Your task to perform on an android device: turn off notifications in google photos Image 0: 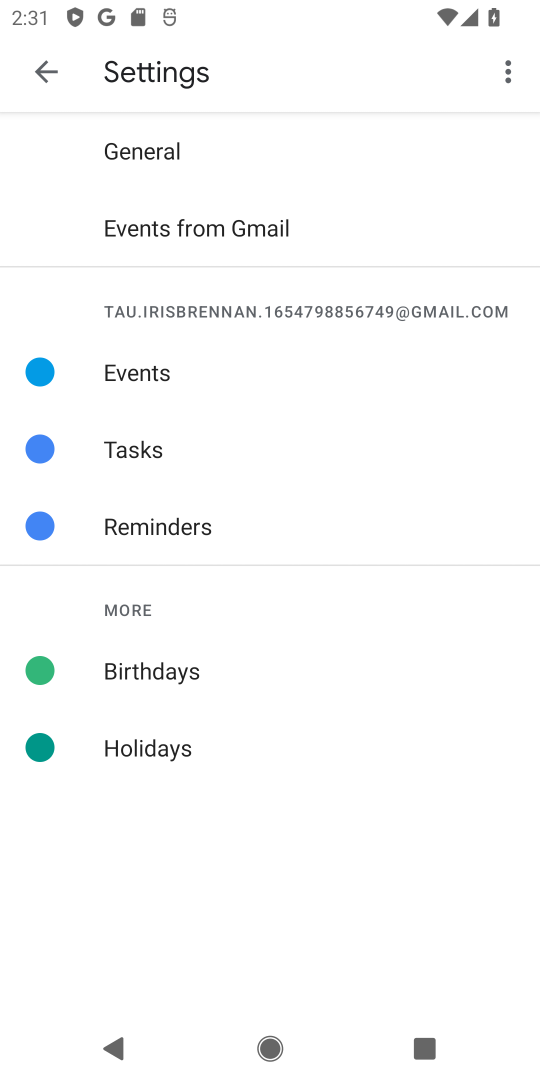
Step 0: press home button
Your task to perform on an android device: turn off notifications in google photos Image 1: 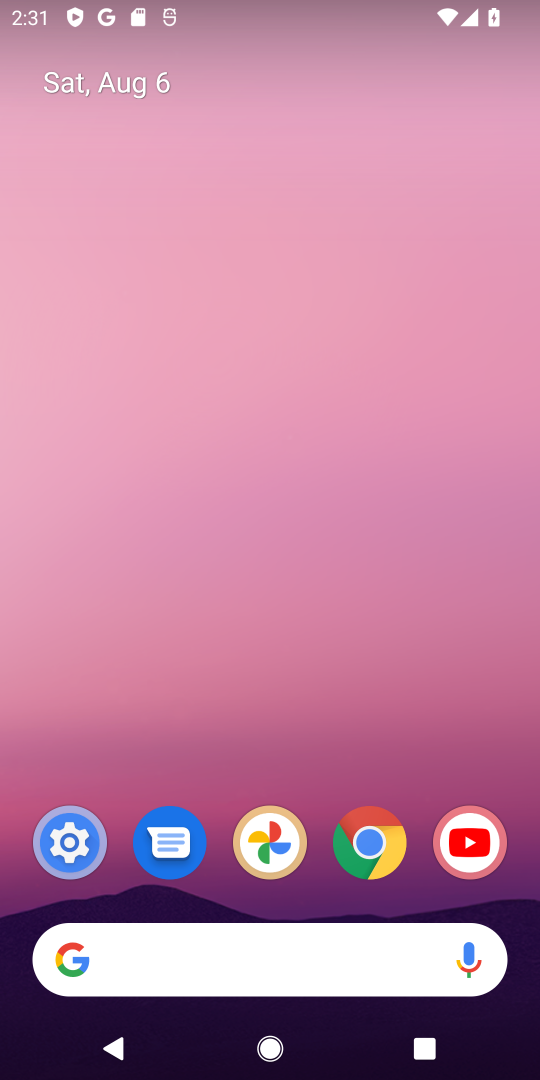
Step 1: click (256, 822)
Your task to perform on an android device: turn off notifications in google photos Image 2: 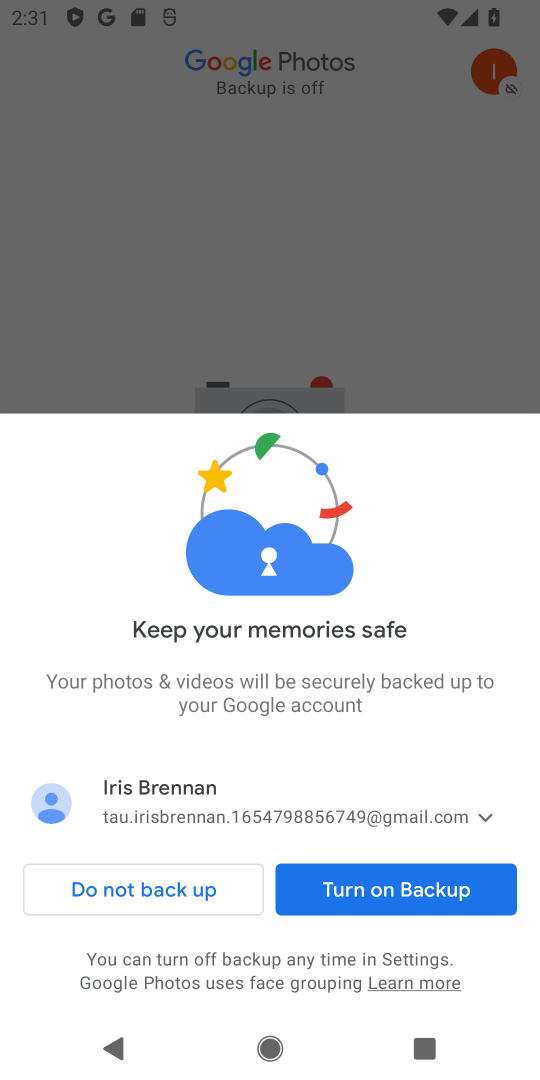
Step 2: click (218, 896)
Your task to perform on an android device: turn off notifications in google photos Image 3: 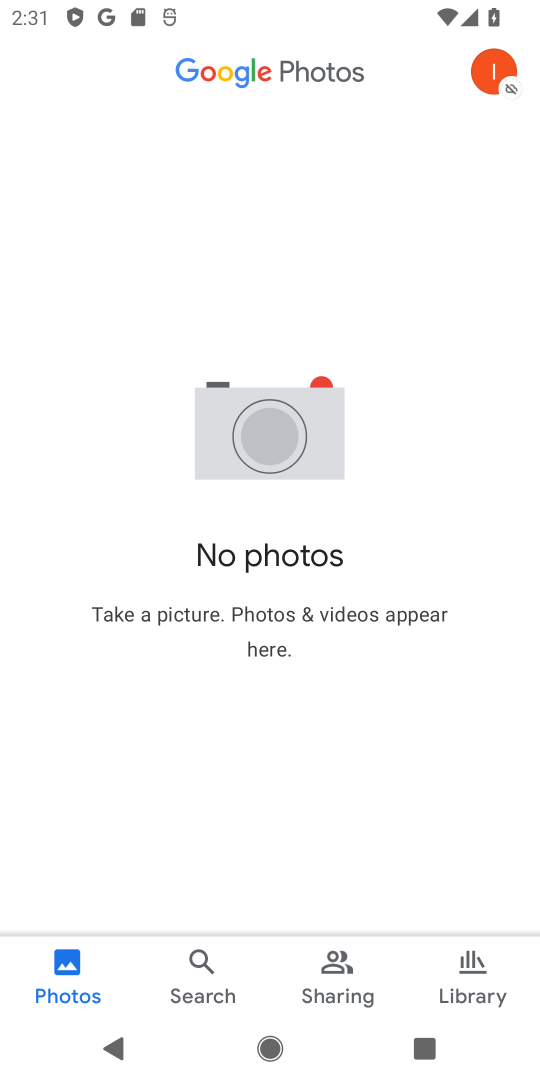
Step 3: click (489, 57)
Your task to perform on an android device: turn off notifications in google photos Image 4: 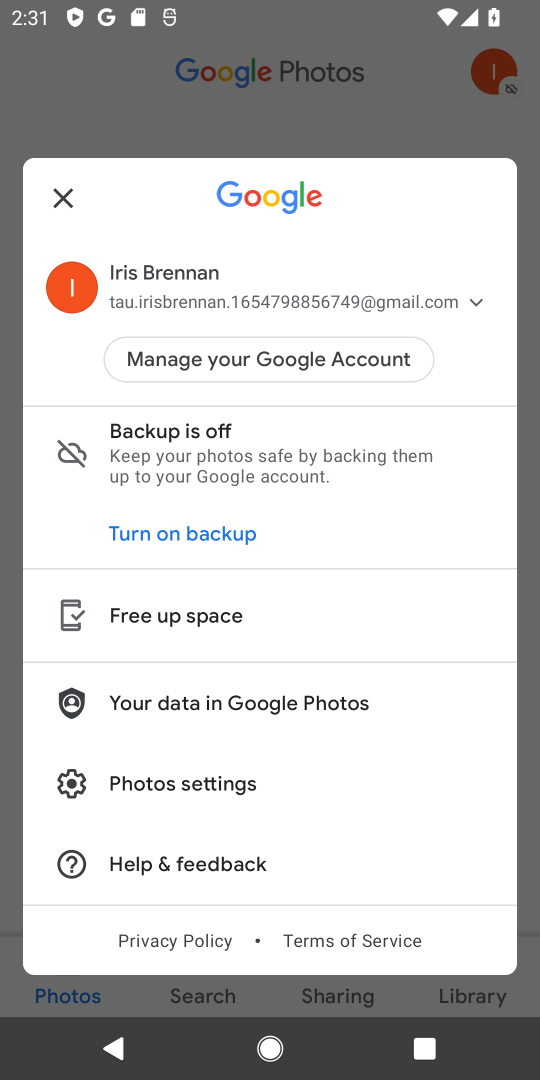
Step 4: drag from (299, 858) to (332, 447)
Your task to perform on an android device: turn off notifications in google photos Image 5: 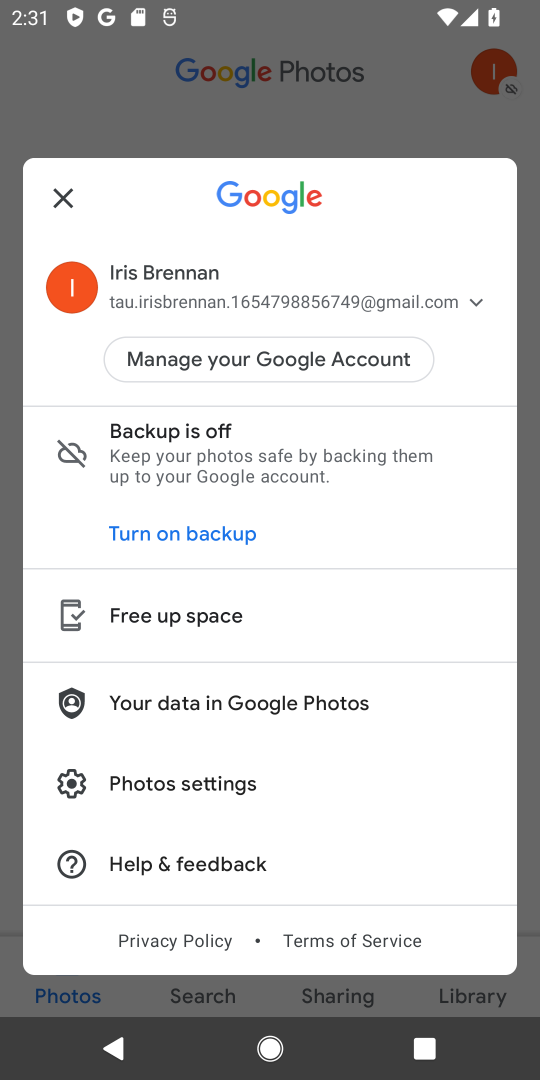
Step 5: click (213, 785)
Your task to perform on an android device: turn off notifications in google photos Image 6: 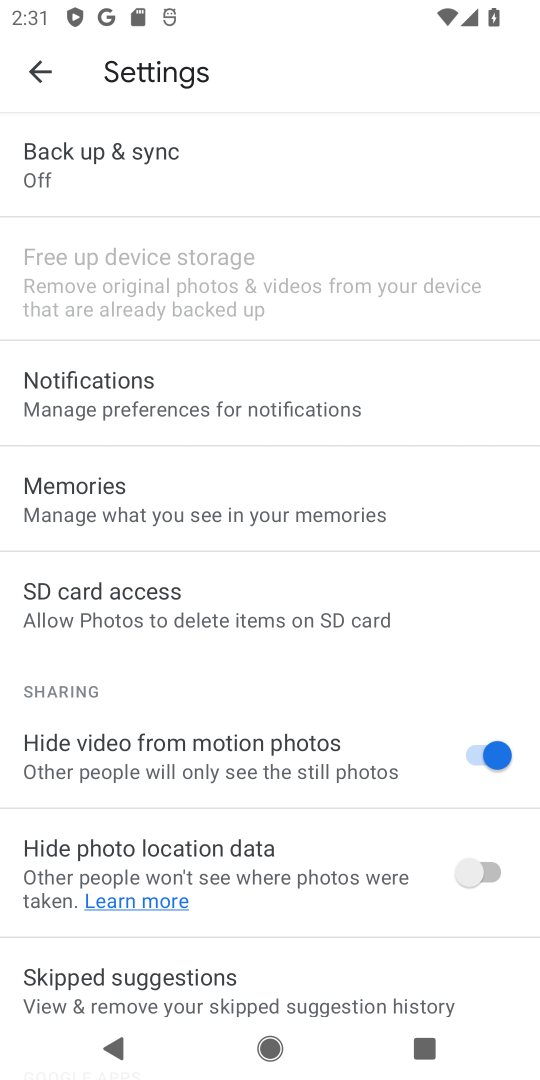
Step 6: click (185, 415)
Your task to perform on an android device: turn off notifications in google photos Image 7: 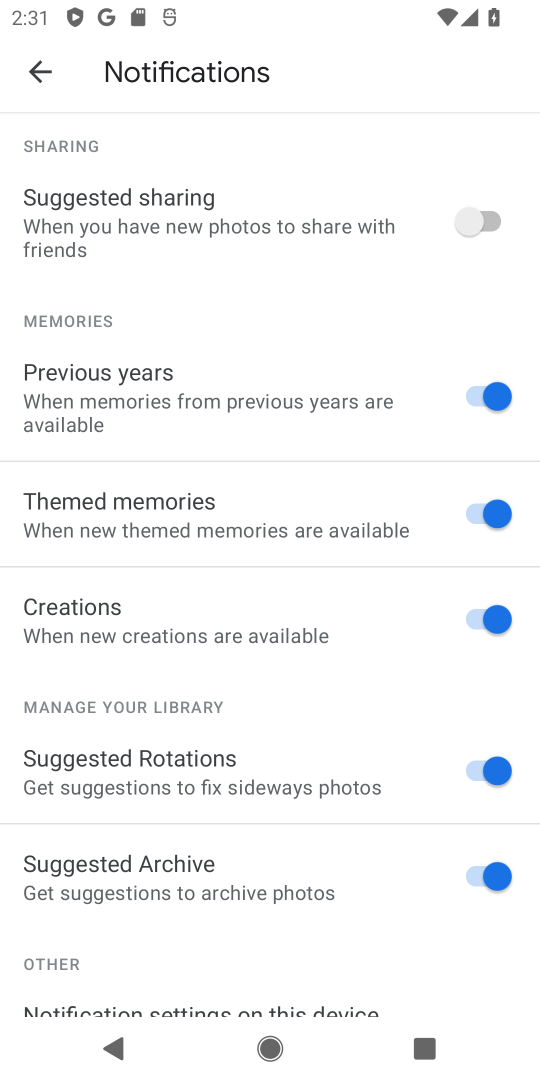
Step 7: drag from (324, 307) to (321, 733)
Your task to perform on an android device: turn off notifications in google photos Image 8: 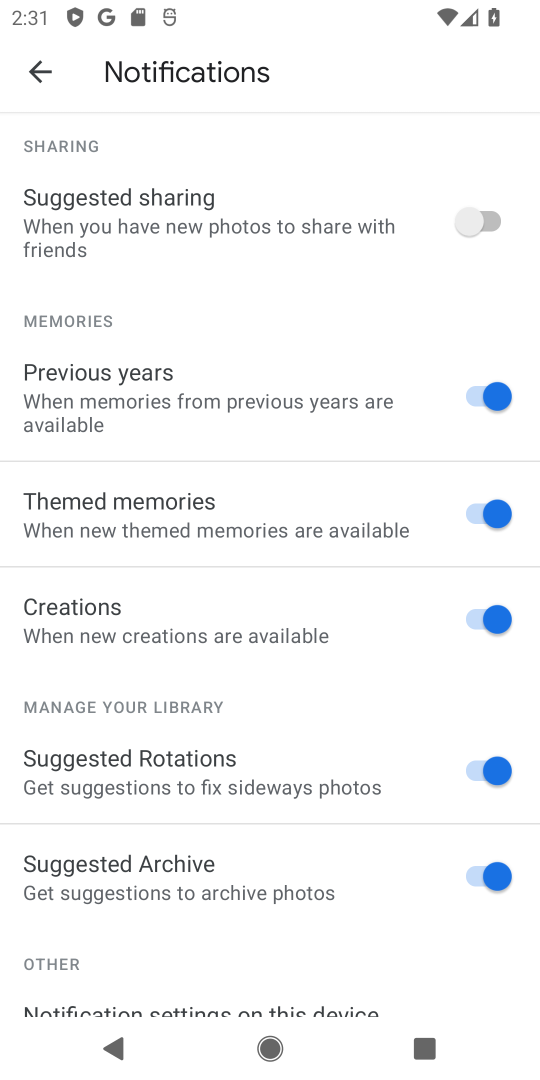
Step 8: drag from (298, 846) to (311, 373)
Your task to perform on an android device: turn off notifications in google photos Image 9: 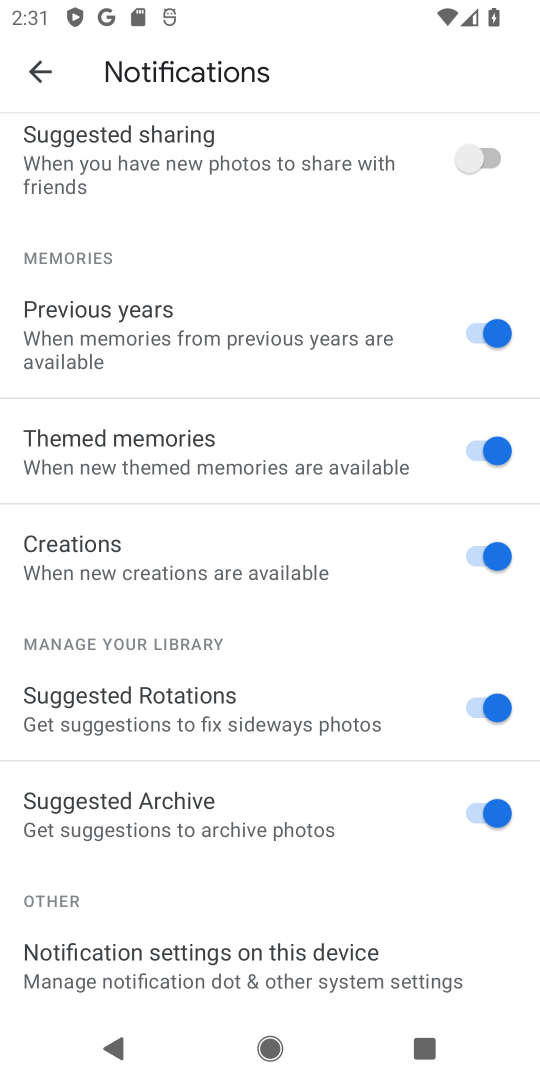
Step 9: drag from (310, 919) to (298, 540)
Your task to perform on an android device: turn off notifications in google photos Image 10: 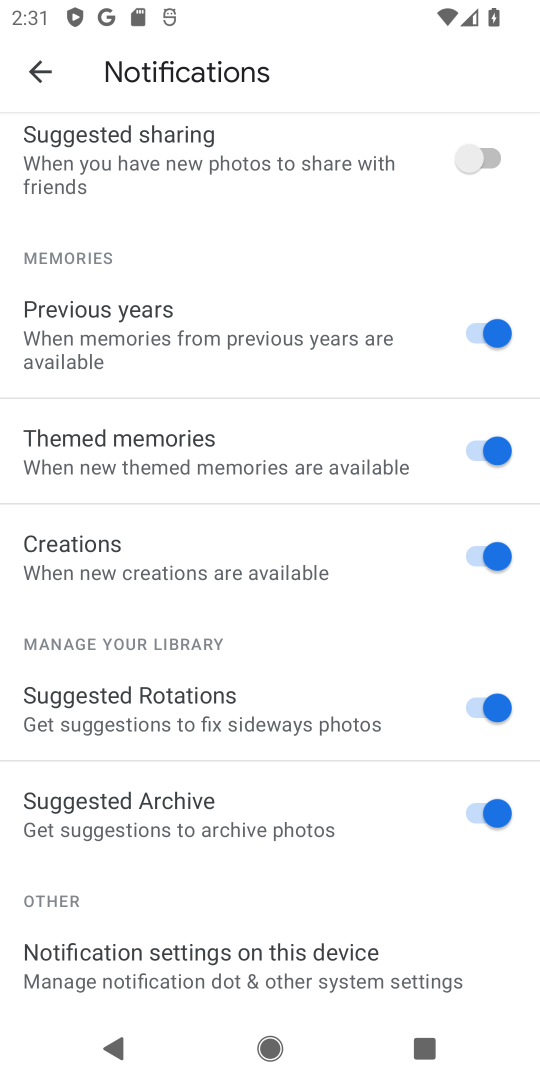
Step 10: drag from (297, 279) to (325, 842)
Your task to perform on an android device: turn off notifications in google photos Image 11: 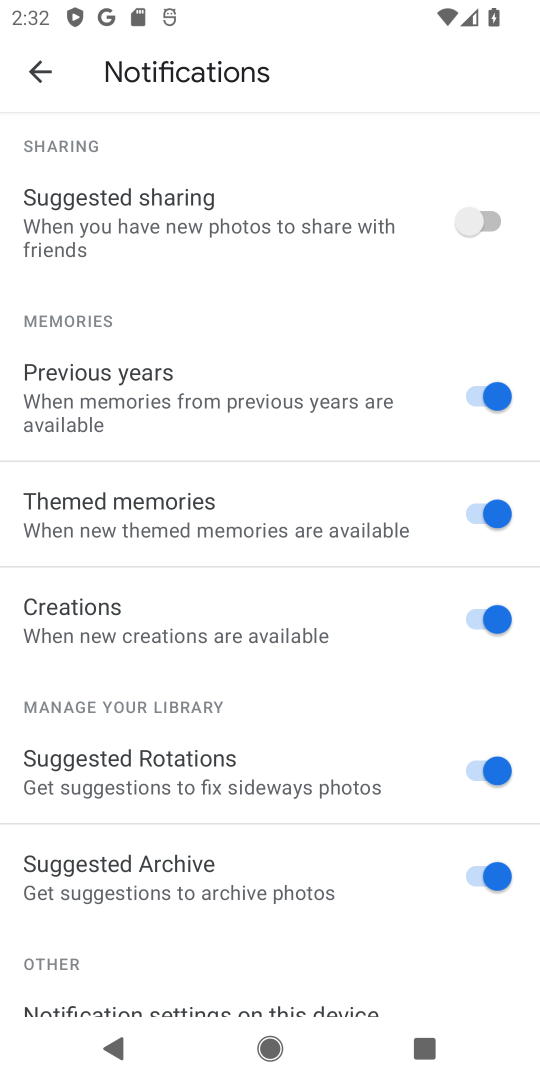
Step 11: click (40, 75)
Your task to perform on an android device: turn off notifications in google photos Image 12: 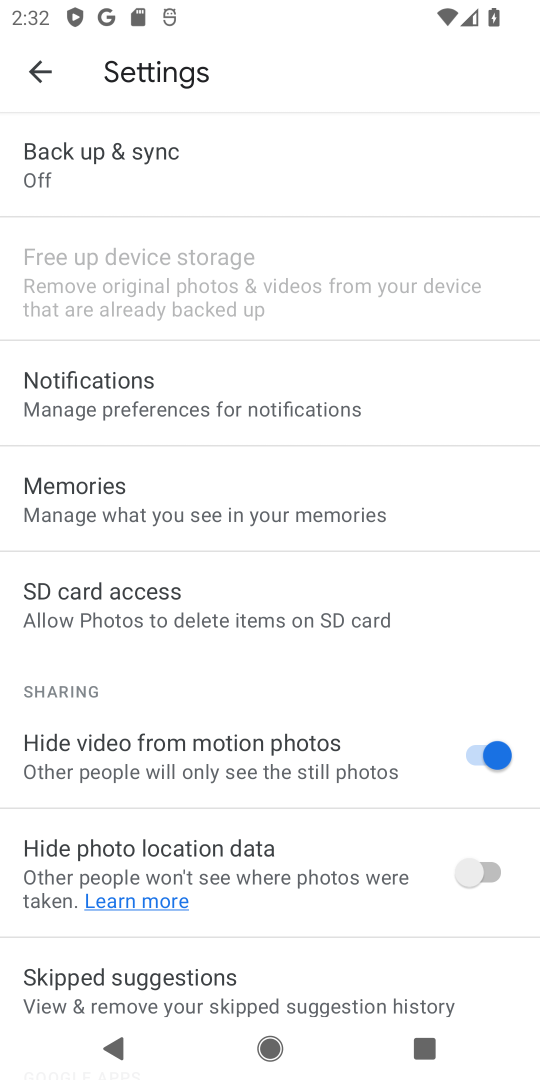
Step 12: click (130, 384)
Your task to perform on an android device: turn off notifications in google photos Image 13: 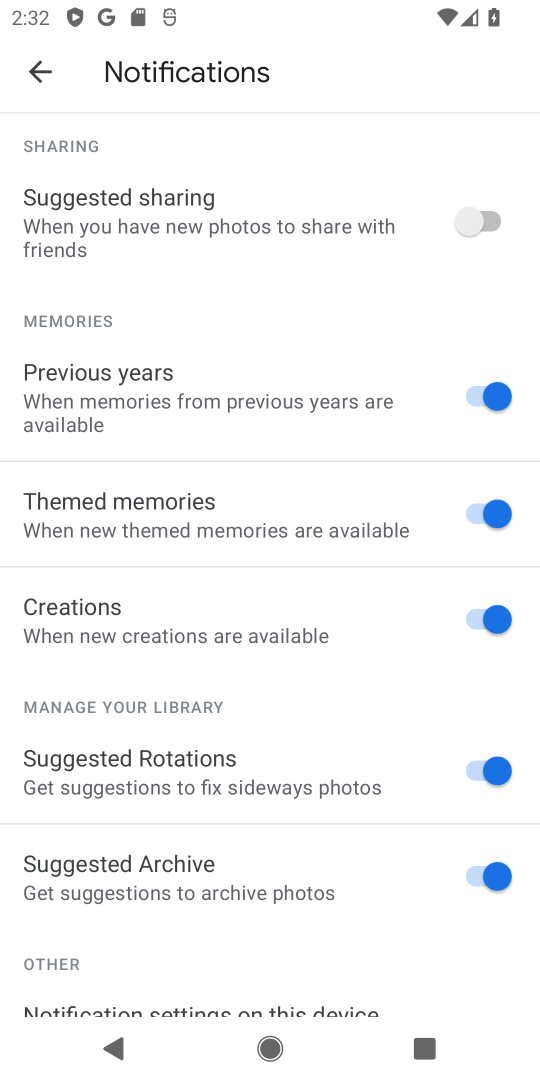
Step 13: task complete